Your task to perform on an android device: see creations saved in the google photos Image 0: 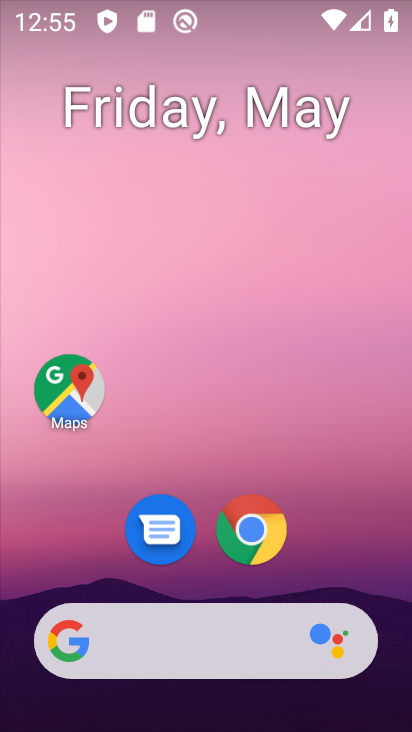
Step 0: drag from (63, 600) to (264, 75)
Your task to perform on an android device: see creations saved in the google photos Image 1: 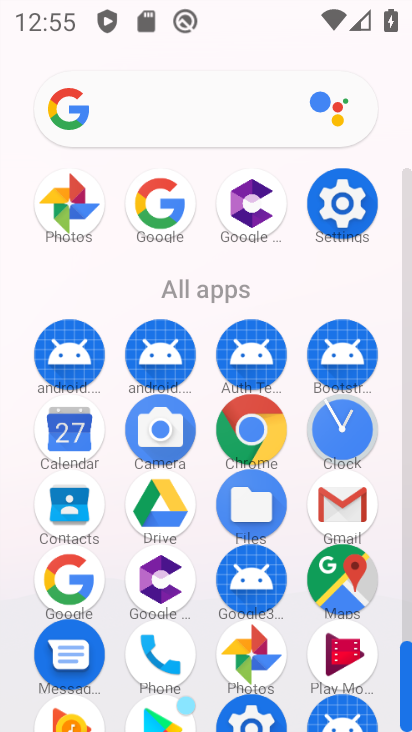
Step 1: drag from (154, 558) to (255, 388)
Your task to perform on an android device: see creations saved in the google photos Image 2: 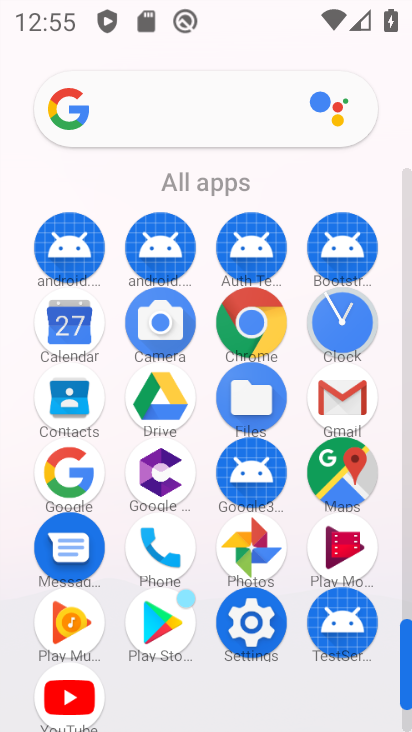
Step 2: click (259, 542)
Your task to perform on an android device: see creations saved in the google photos Image 3: 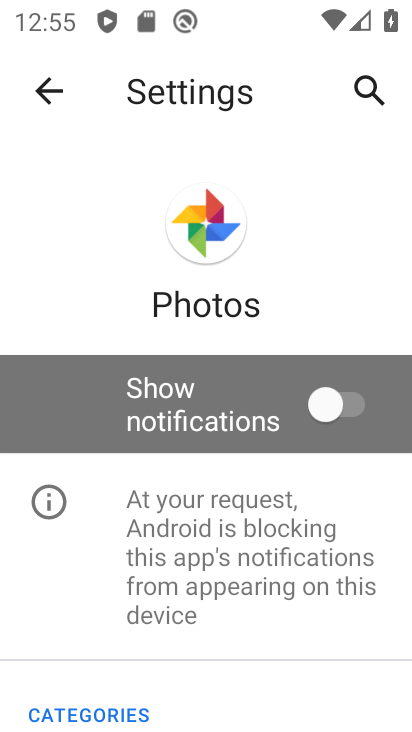
Step 3: click (66, 109)
Your task to perform on an android device: see creations saved in the google photos Image 4: 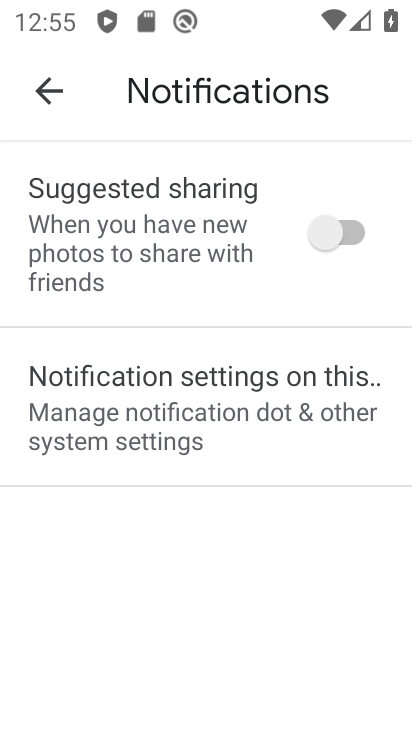
Step 4: click (66, 109)
Your task to perform on an android device: see creations saved in the google photos Image 5: 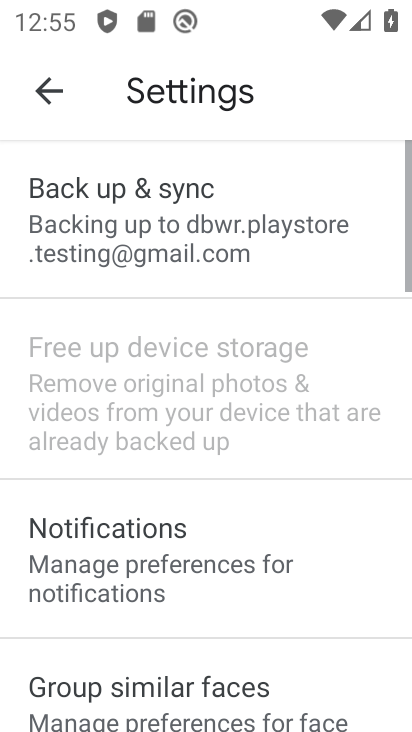
Step 5: click (46, 121)
Your task to perform on an android device: see creations saved in the google photos Image 6: 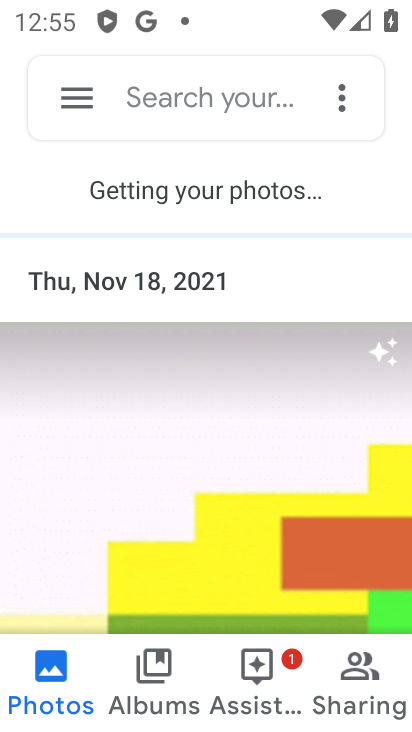
Step 6: click (228, 85)
Your task to perform on an android device: see creations saved in the google photos Image 7: 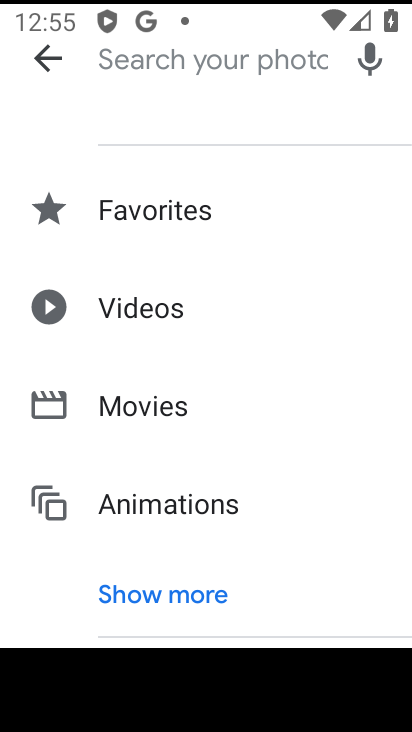
Step 7: click (181, 591)
Your task to perform on an android device: see creations saved in the google photos Image 8: 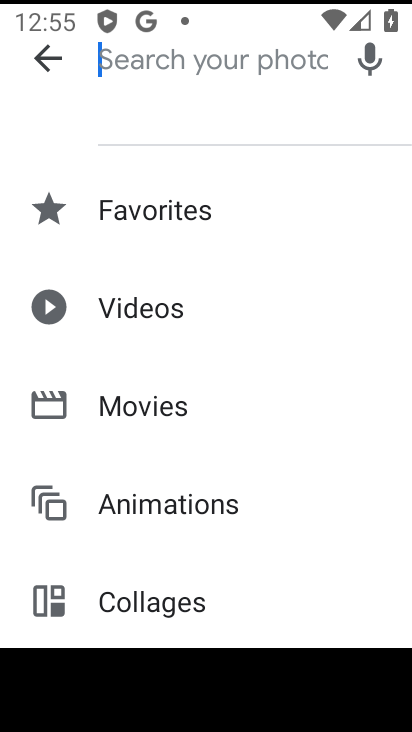
Step 8: drag from (184, 586) to (350, 83)
Your task to perform on an android device: see creations saved in the google photos Image 9: 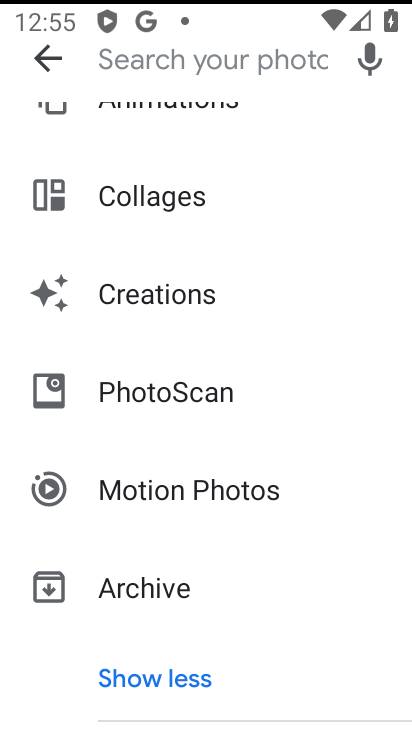
Step 9: click (202, 298)
Your task to perform on an android device: see creations saved in the google photos Image 10: 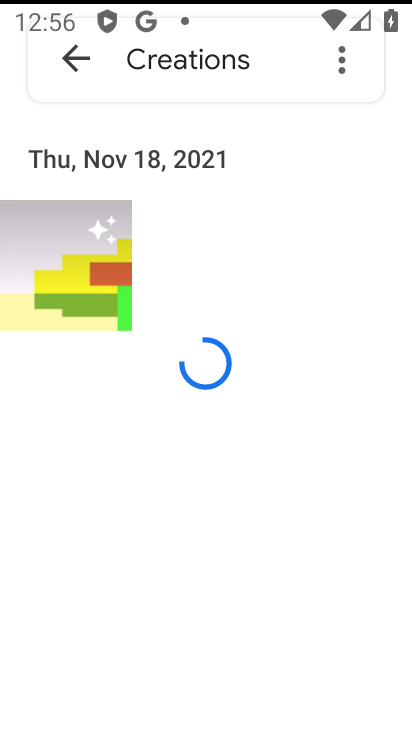
Step 10: task complete